Your task to perform on an android device: Go to Yahoo.com Image 0: 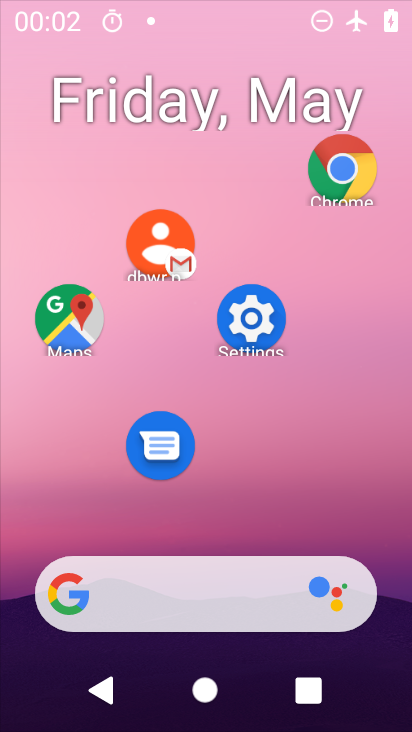
Step 0: click (385, 169)
Your task to perform on an android device: Go to Yahoo.com Image 1: 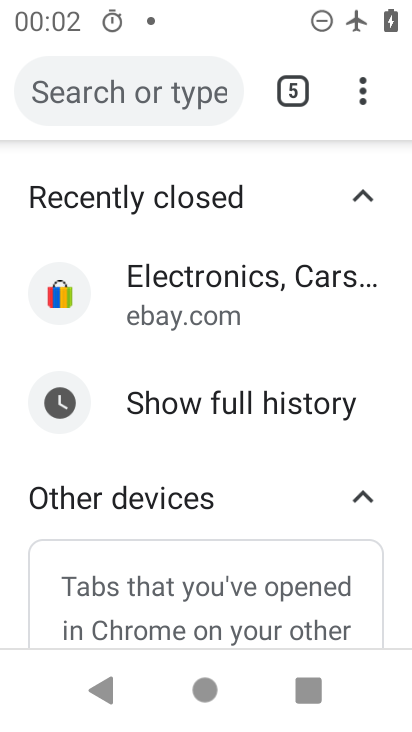
Step 1: click (184, 80)
Your task to perform on an android device: Go to Yahoo.com Image 2: 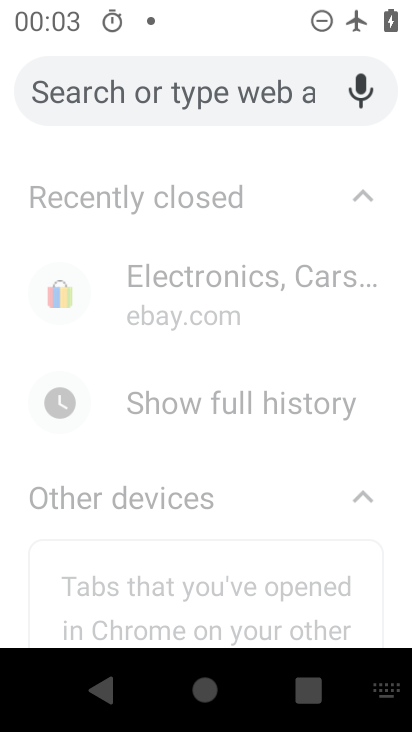
Step 2: type "yahoo"
Your task to perform on an android device: Go to Yahoo.com Image 3: 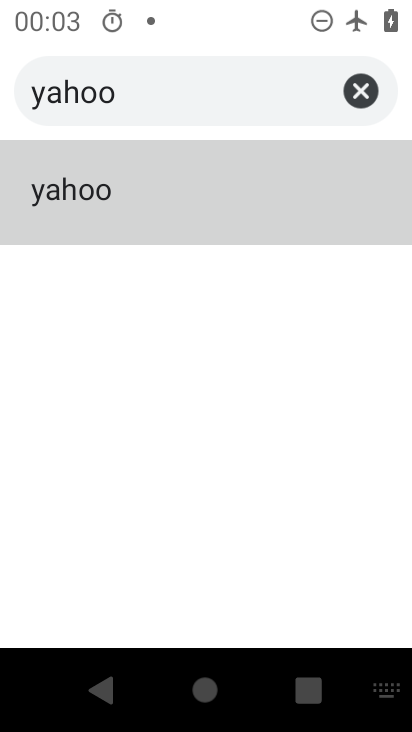
Step 3: click (141, 231)
Your task to perform on an android device: Go to Yahoo.com Image 4: 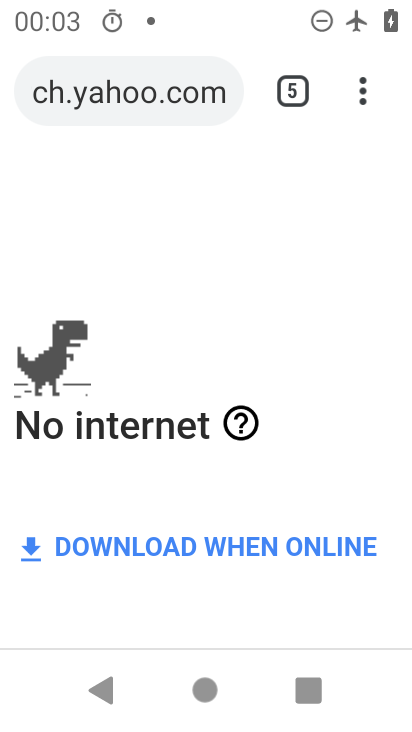
Step 4: task complete